Your task to perform on an android device: turn pop-ups on in chrome Image 0: 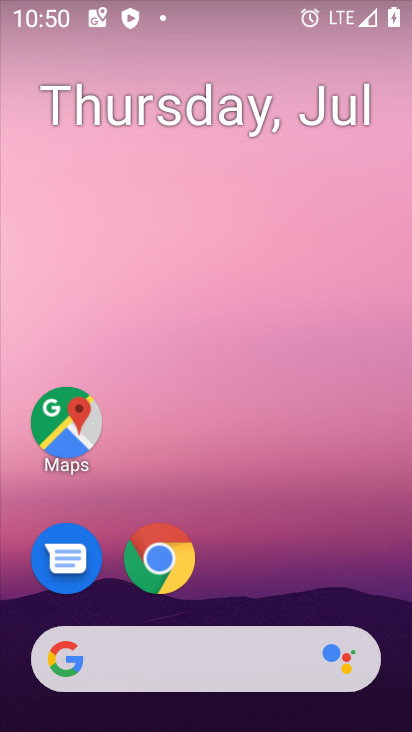
Step 0: press home button
Your task to perform on an android device: turn pop-ups on in chrome Image 1: 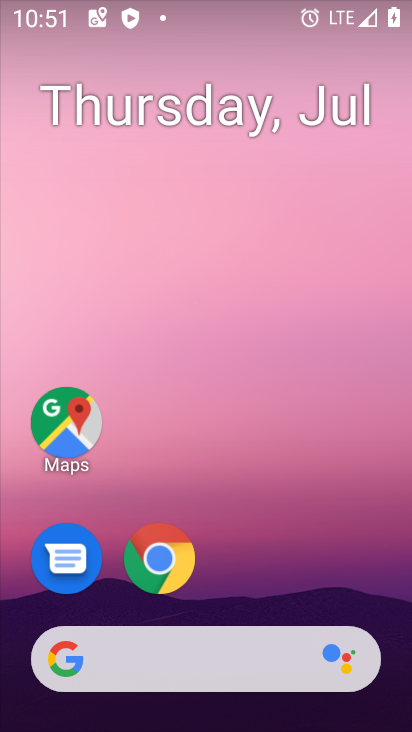
Step 1: drag from (366, 566) to (349, 110)
Your task to perform on an android device: turn pop-ups on in chrome Image 2: 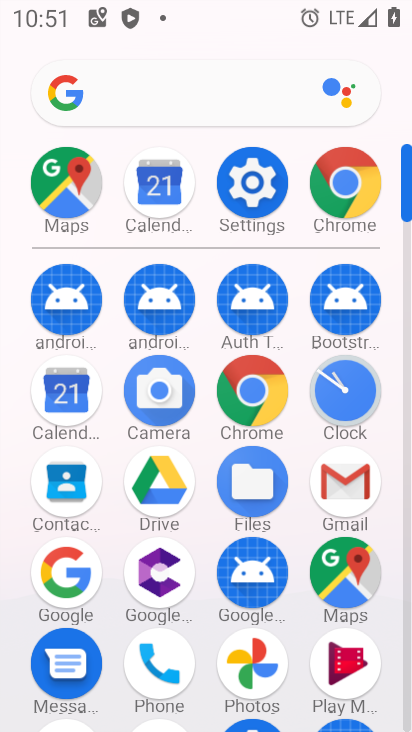
Step 2: click (266, 398)
Your task to perform on an android device: turn pop-ups on in chrome Image 3: 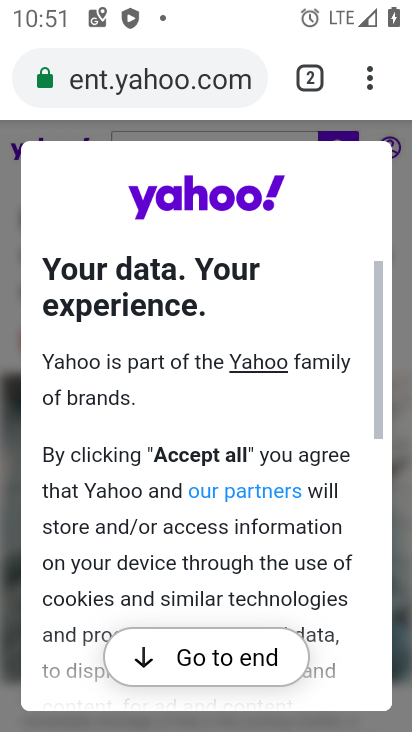
Step 3: click (365, 83)
Your task to perform on an android device: turn pop-ups on in chrome Image 4: 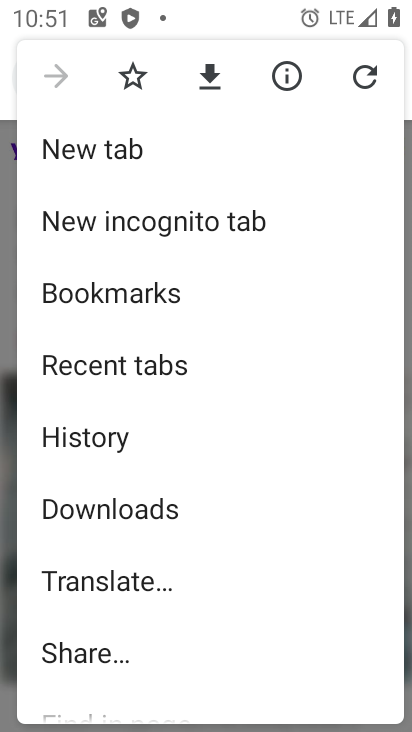
Step 4: drag from (303, 440) to (297, 360)
Your task to perform on an android device: turn pop-ups on in chrome Image 5: 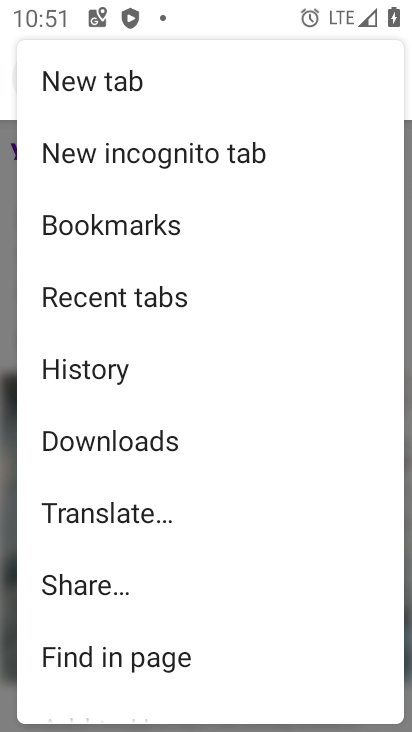
Step 5: drag from (297, 479) to (305, 369)
Your task to perform on an android device: turn pop-ups on in chrome Image 6: 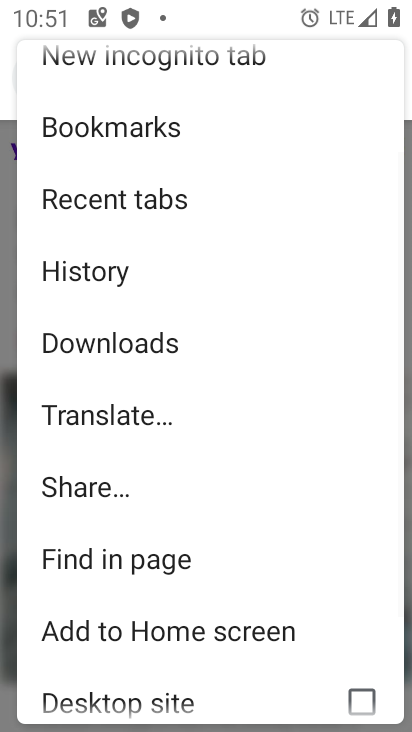
Step 6: drag from (309, 497) to (309, 382)
Your task to perform on an android device: turn pop-ups on in chrome Image 7: 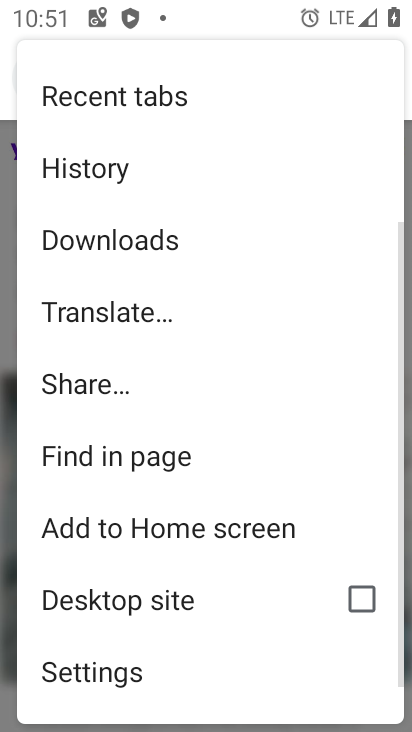
Step 7: drag from (309, 490) to (309, 377)
Your task to perform on an android device: turn pop-ups on in chrome Image 8: 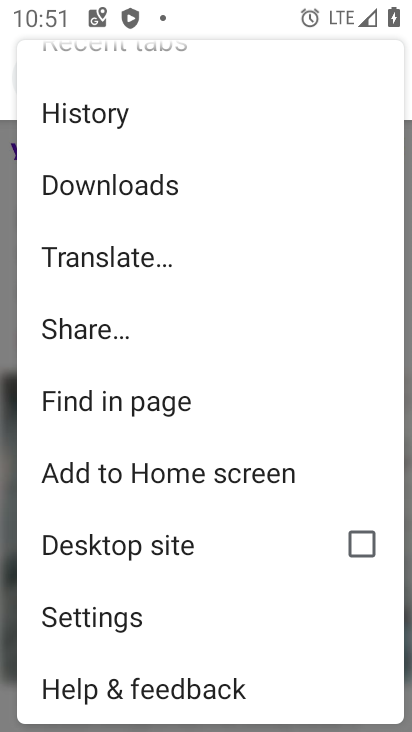
Step 8: click (155, 618)
Your task to perform on an android device: turn pop-ups on in chrome Image 9: 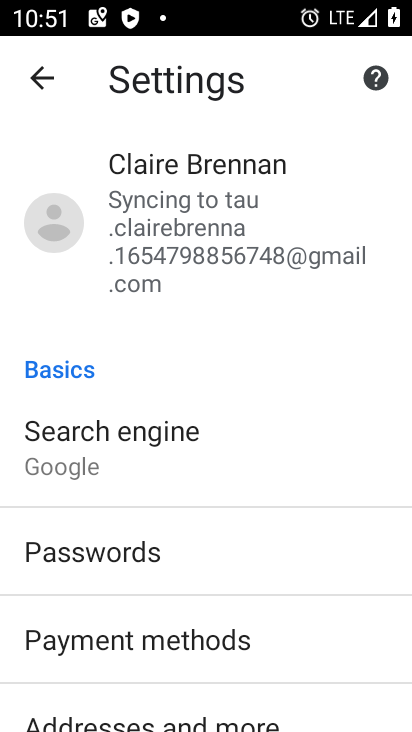
Step 9: drag from (289, 608) to (312, 496)
Your task to perform on an android device: turn pop-ups on in chrome Image 10: 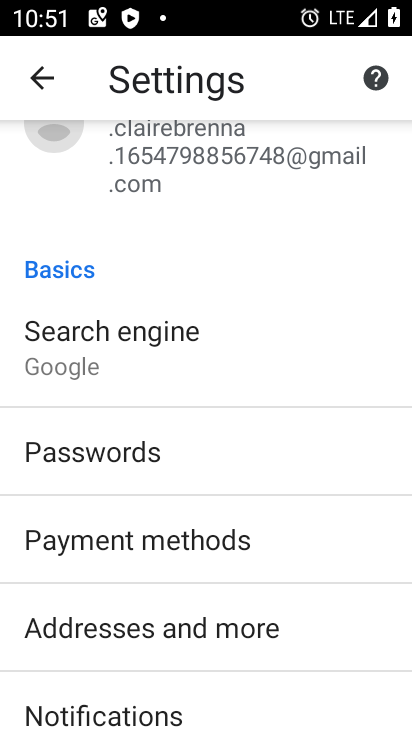
Step 10: drag from (351, 598) to (350, 486)
Your task to perform on an android device: turn pop-ups on in chrome Image 11: 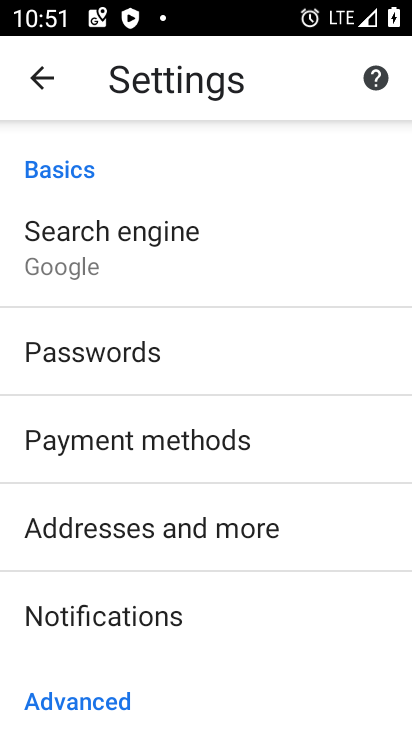
Step 11: drag from (333, 616) to (340, 482)
Your task to perform on an android device: turn pop-ups on in chrome Image 12: 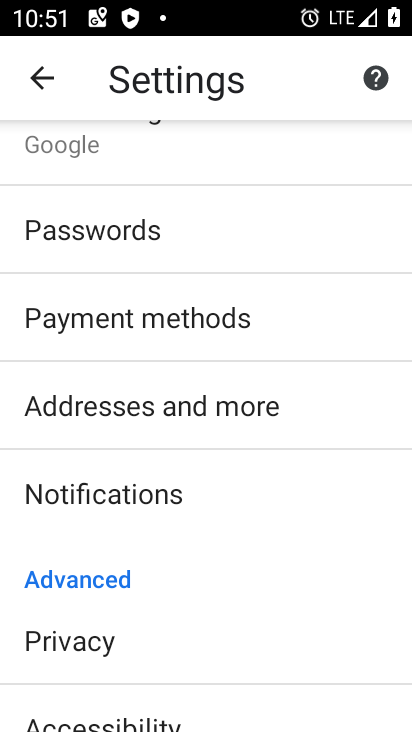
Step 12: drag from (321, 596) to (329, 481)
Your task to perform on an android device: turn pop-ups on in chrome Image 13: 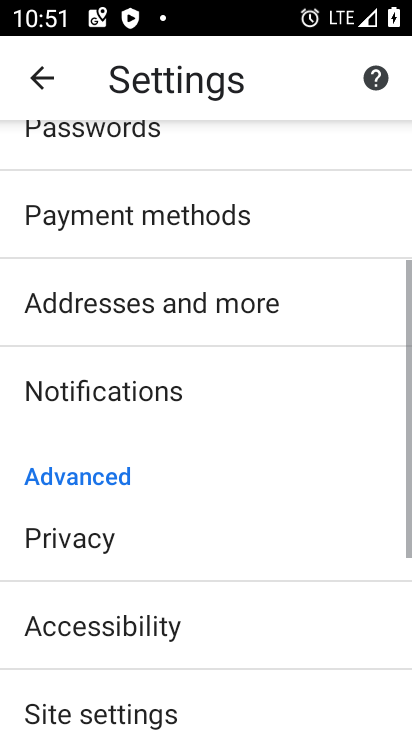
Step 13: drag from (316, 613) to (310, 455)
Your task to perform on an android device: turn pop-ups on in chrome Image 14: 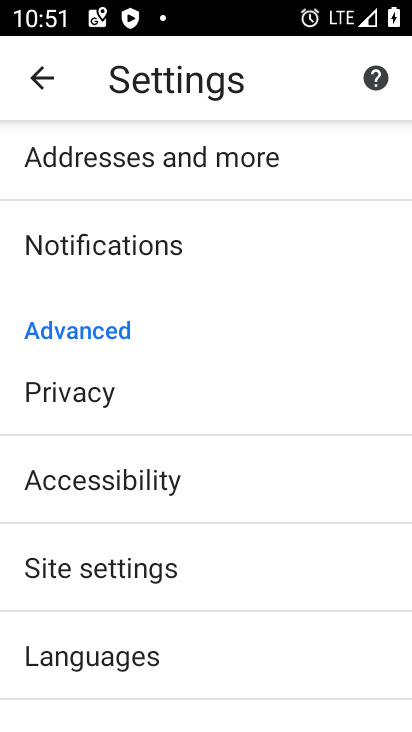
Step 14: click (311, 538)
Your task to perform on an android device: turn pop-ups on in chrome Image 15: 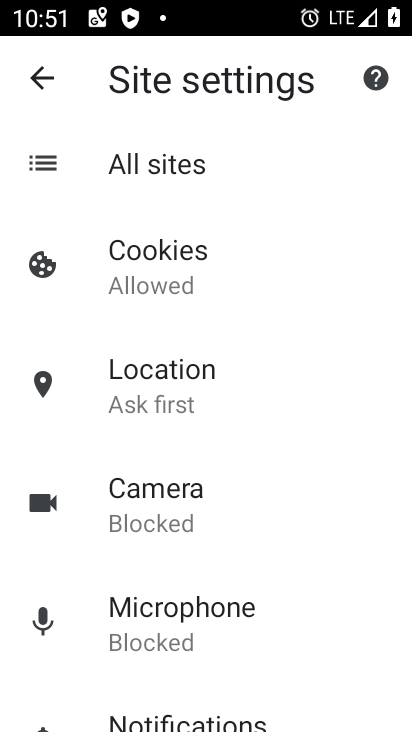
Step 15: drag from (322, 522) to (329, 405)
Your task to perform on an android device: turn pop-ups on in chrome Image 16: 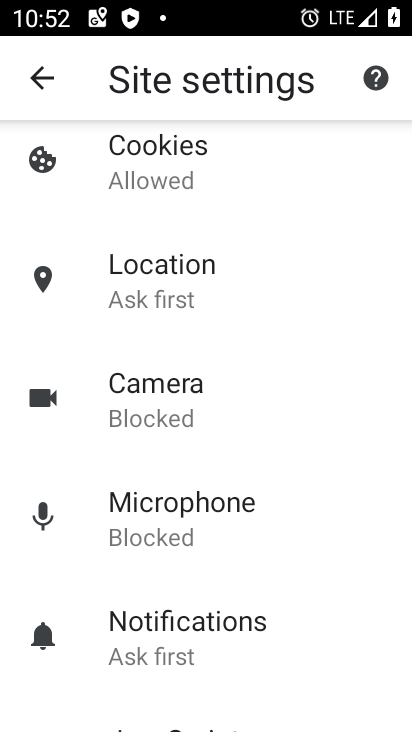
Step 16: drag from (336, 548) to (340, 418)
Your task to perform on an android device: turn pop-ups on in chrome Image 17: 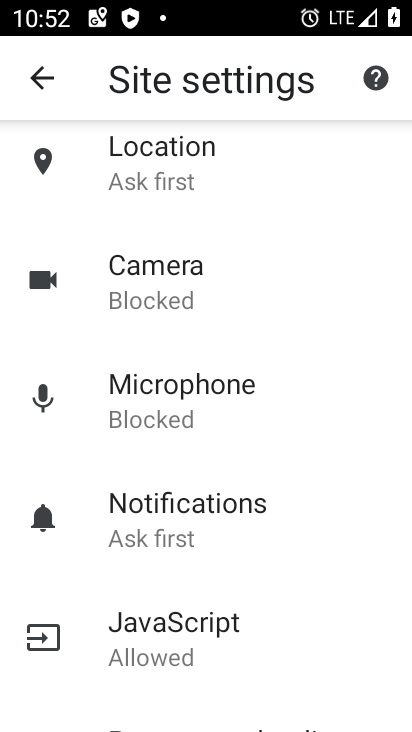
Step 17: drag from (340, 563) to (347, 447)
Your task to perform on an android device: turn pop-ups on in chrome Image 18: 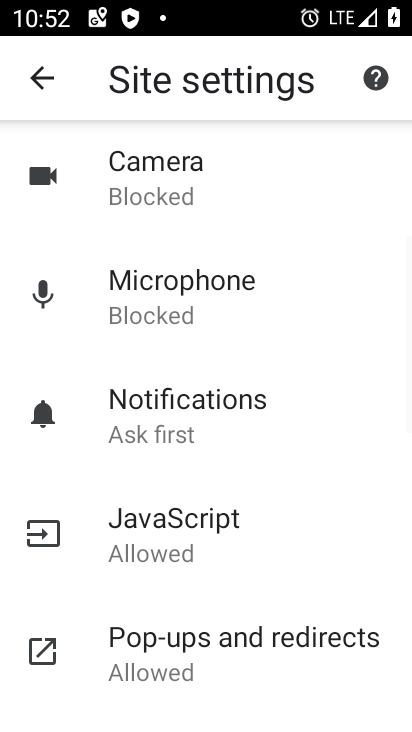
Step 18: drag from (339, 559) to (349, 325)
Your task to perform on an android device: turn pop-ups on in chrome Image 19: 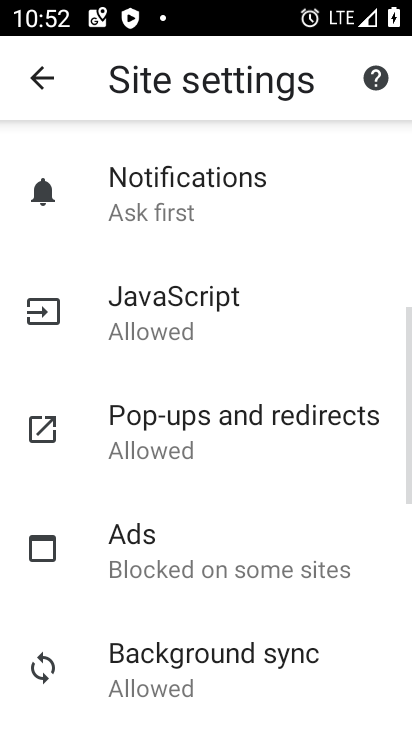
Step 19: click (348, 439)
Your task to perform on an android device: turn pop-ups on in chrome Image 20: 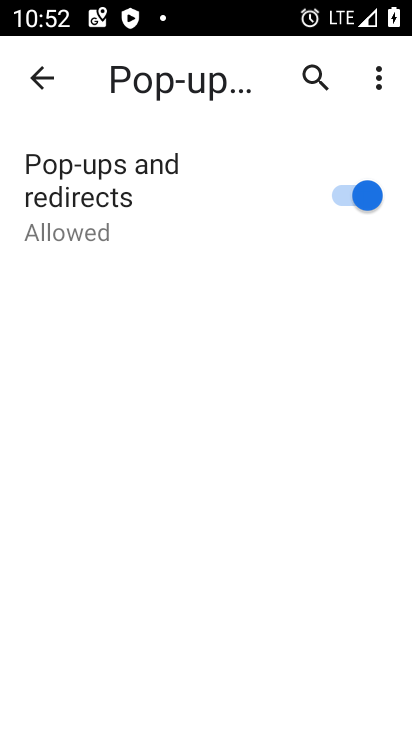
Step 20: task complete